Your task to perform on an android device: Open Youtube and go to the subscriptions tab Image 0: 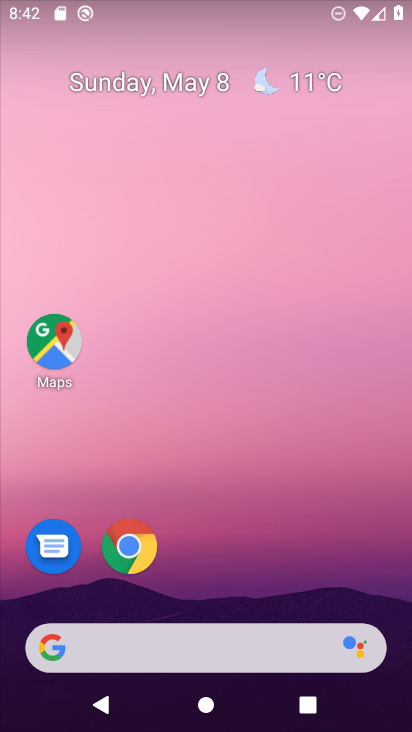
Step 0: drag from (246, 518) to (201, 7)
Your task to perform on an android device: Open Youtube and go to the subscriptions tab Image 1: 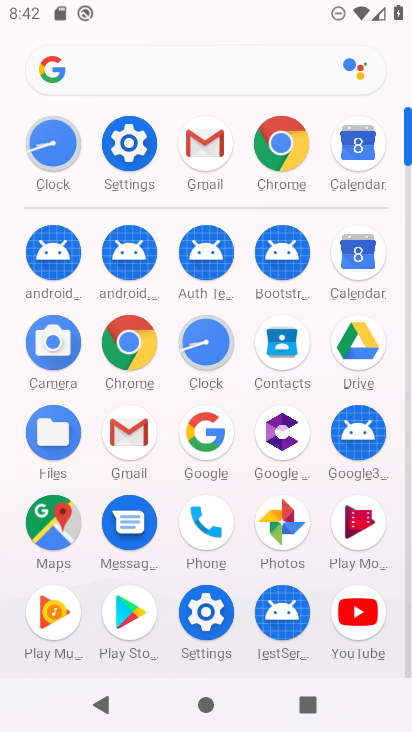
Step 1: click (355, 603)
Your task to perform on an android device: Open Youtube and go to the subscriptions tab Image 2: 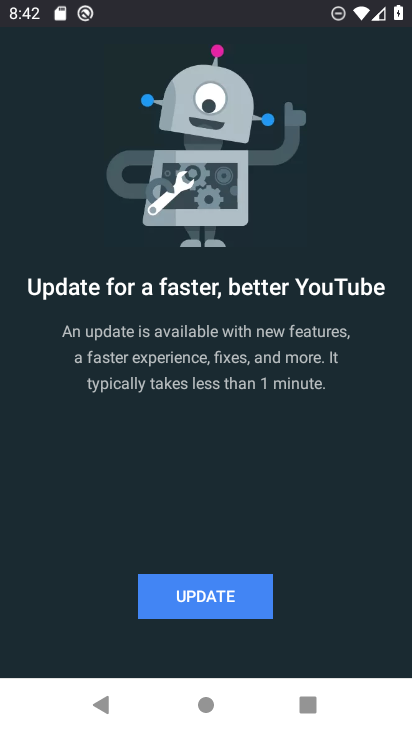
Step 2: click (261, 598)
Your task to perform on an android device: Open Youtube and go to the subscriptions tab Image 3: 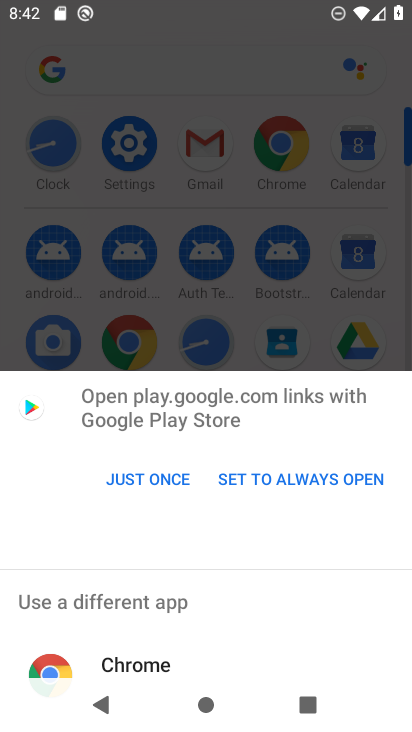
Step 3: click (164, 472)
Your task to perform on an android device: Open Youtube and go to the subscriptions tab Image 4: 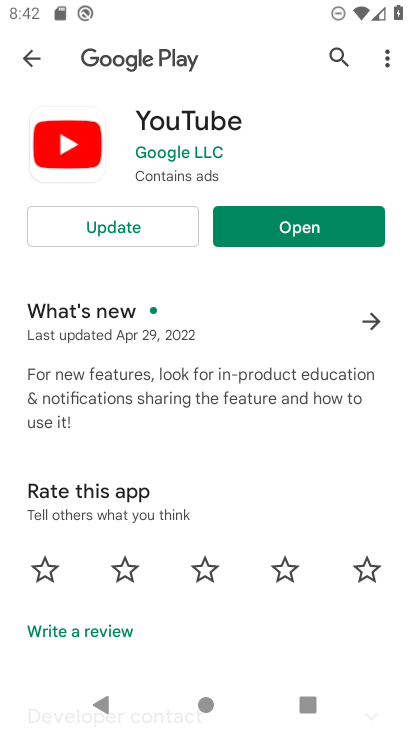
Step 4: click (308, 231)
Your task to perform on an android device: Open Youtube and go to the subscriptions tab Image 5: 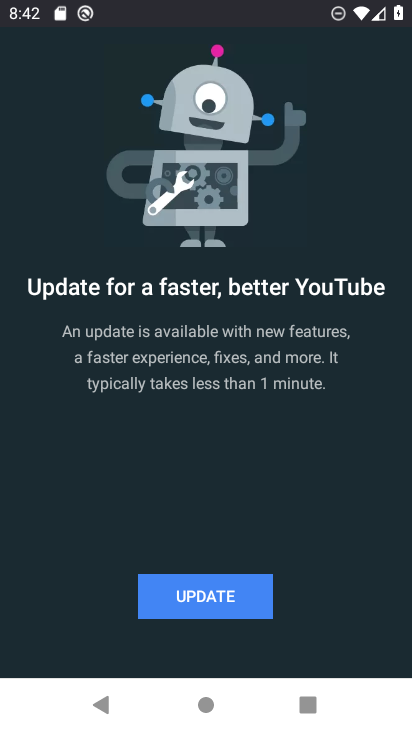
Step 5: click (239, 592)
Your task to perform on an android device: Open Youtube and go to the subscriptions tab Image 6: 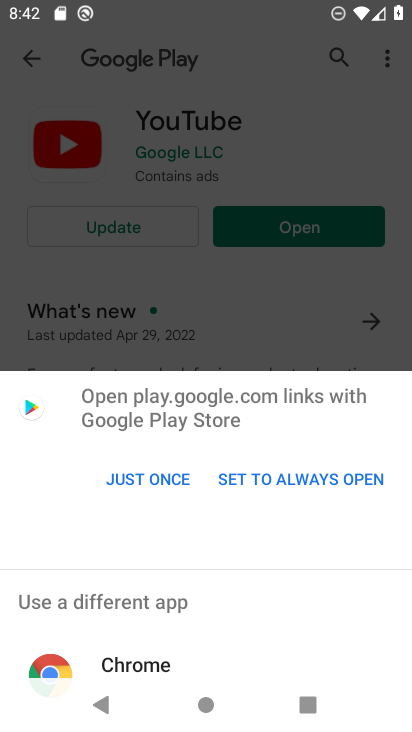
Step 6: click (154, 473)
Your task to perform on an android device: Open Youtube and go to the subscriptions tab Image 7: 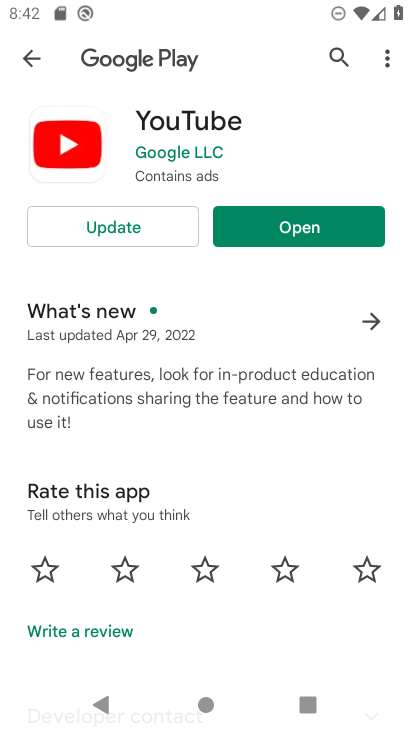
Step 7: click (156, 224)
Your task to perform on an android device: Open Youtube and go to the subscriptions tab Image 8: 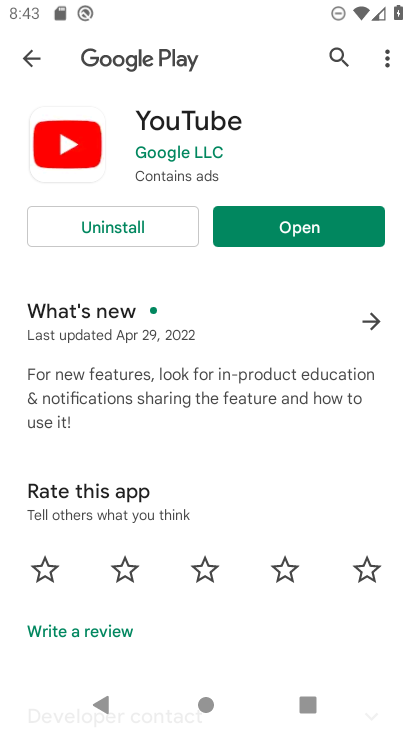
Step 8: click (255, 224)
Your task to perform on an android device: Open Youtube and go to the subscriptions tab Image 9: 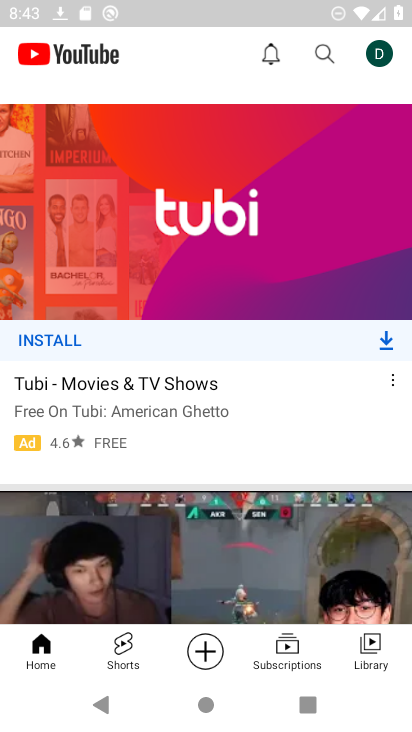
Step 9: click (284, 642)
Your task to perform on an android device: Open Youtube and go to the subscriptions tab Image 10: 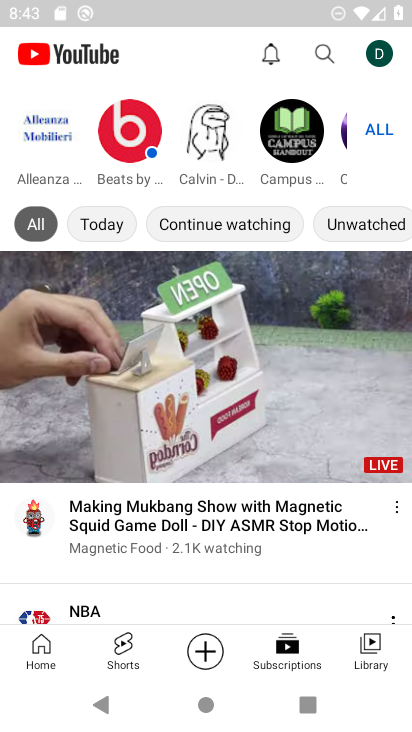
Step 10: task complete